Your task to perform on an android device: Open calendar and show me the first week of next month Image 0: 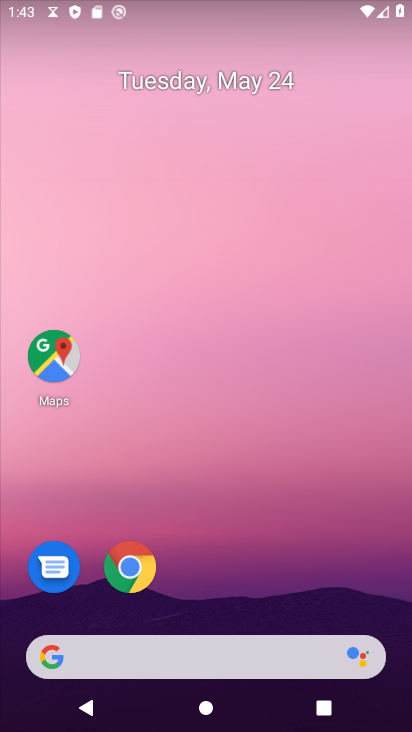
Step 0: drag from (218, 607) to (305, 112)
Your task to perform on an android device: Open calendar and show me the first week of next month Image 1: 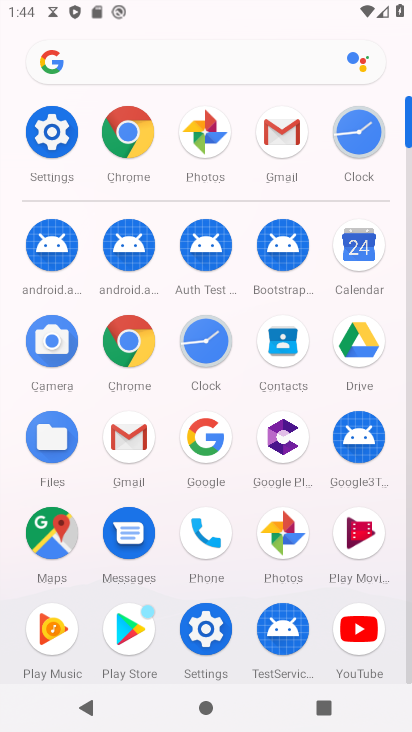
Step 1: click (357, 249)
Your task to perform on an android device: Open calendar and show me the first week of next month Image 2: 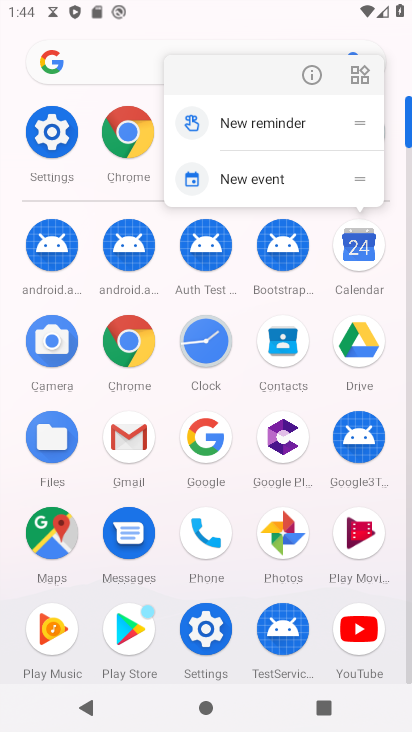
Step 2: click (356, 250)
Your task to perform on an android device: Open calendar and show me the first week of next month Image 3: 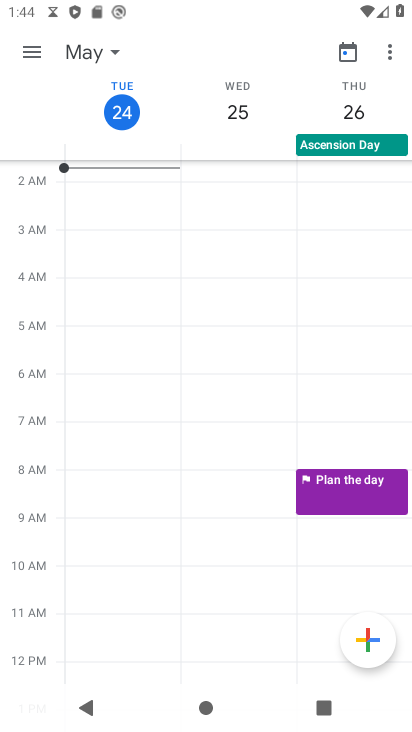
Step 3: click (35, 53)
Your task to perform on an android device: Open calendar and show me the first week of next month Image 4: 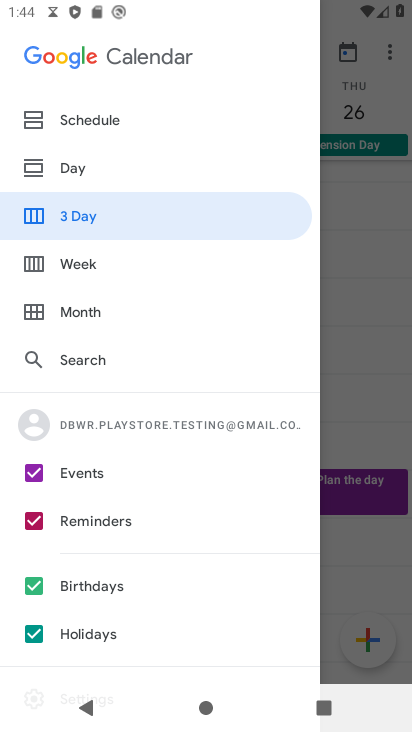
Step 4: click (84, 263)
Your task to perform on an android device: Open calendar and show me the first week of next month Image 5: 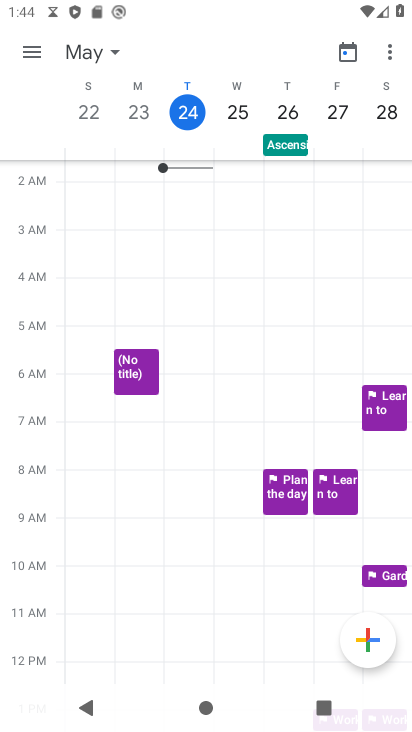
Step 5: task complete